Your task to perform on an android device: turn off translation in the chrome app Image 0: 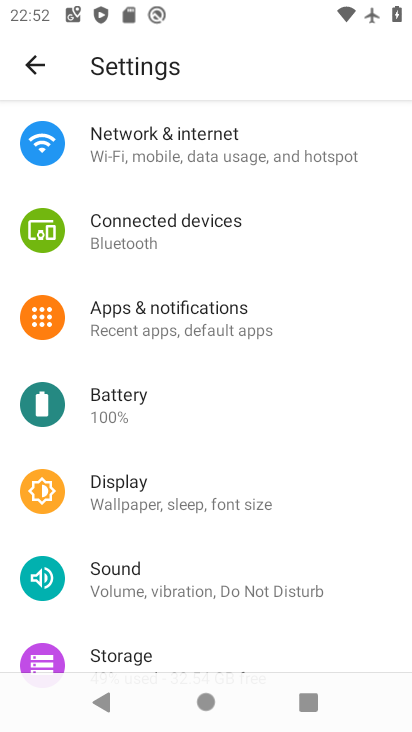
Step 0: press home button
Your task to perform on an android device: turn off translation in the chrome app Image 1: 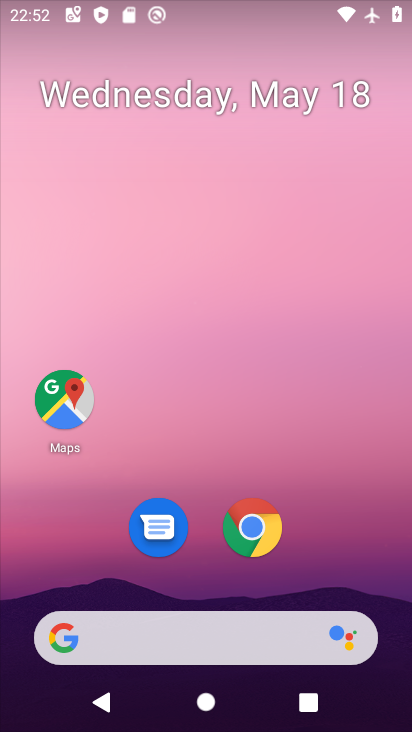
Step 1: click (262, 542)
Your task to perform on an android device: turn off translation in the chrome app Image 2: 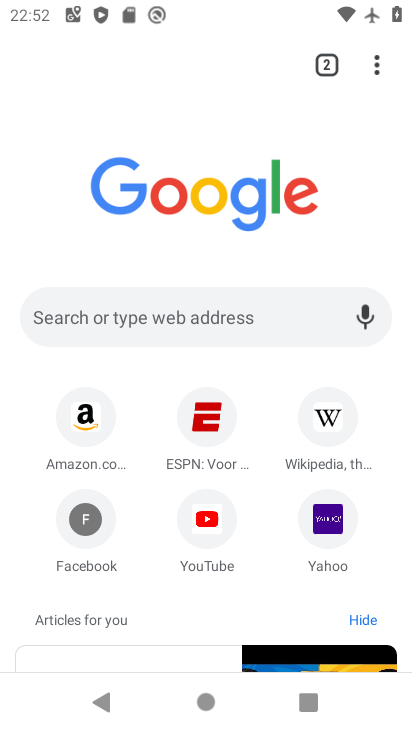
Step 2: click (383, 60)
Your task to perform on an android device: turn off translation in the chrome app Image 3: 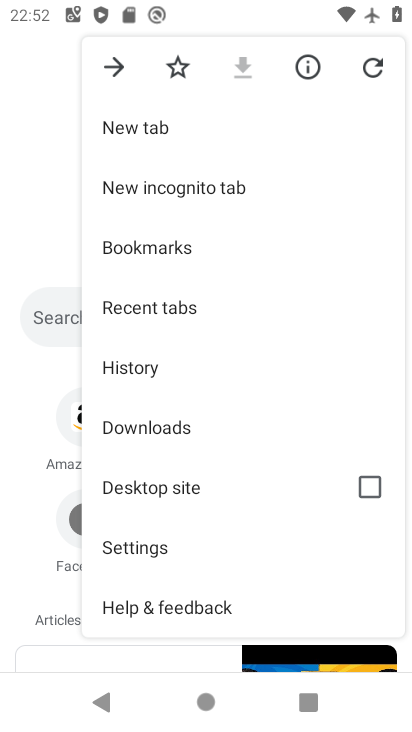
Step 3: click (124, 561)
Your task to perform on an android device: turn off translation in the chrome app Image 4: 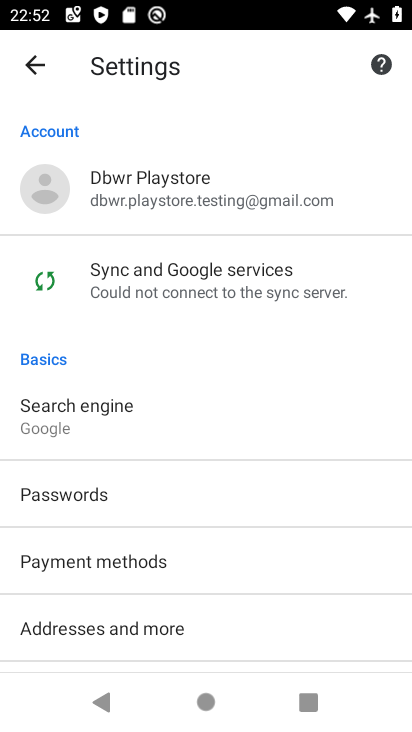
Step 4: drag from (114, 586) to (133, 295)
Your task to perform on an android device: turn off translation in the chrome app Image 5: 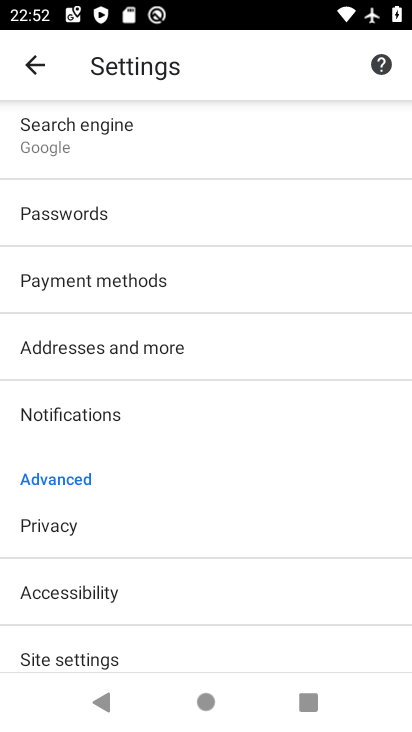
Step 5: click (86, 654)
Your task to perform on an android device: turn off translation in the chrome app Image 6: 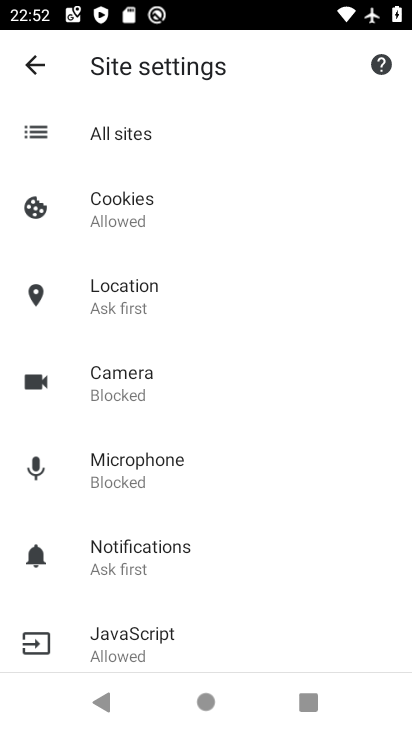
Step 6: drag from (152, 631) to (171, 404)
Your task to perform on an android device: turn off translation in the chrome app Image 7: 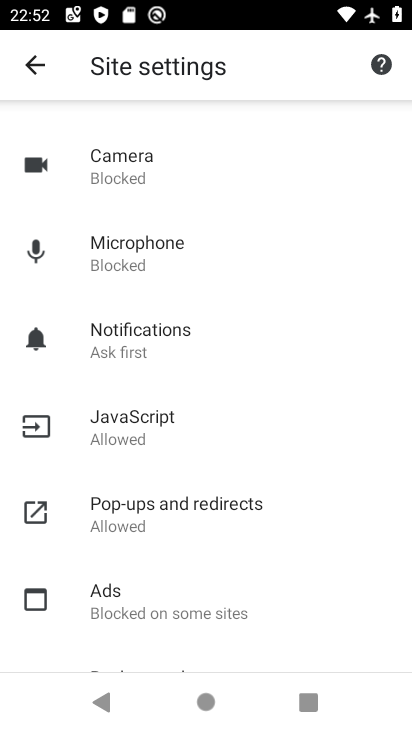
Step 7: click (46, 65)
Your task to perform on an android device: turn off translation in the chrome app Image 8: 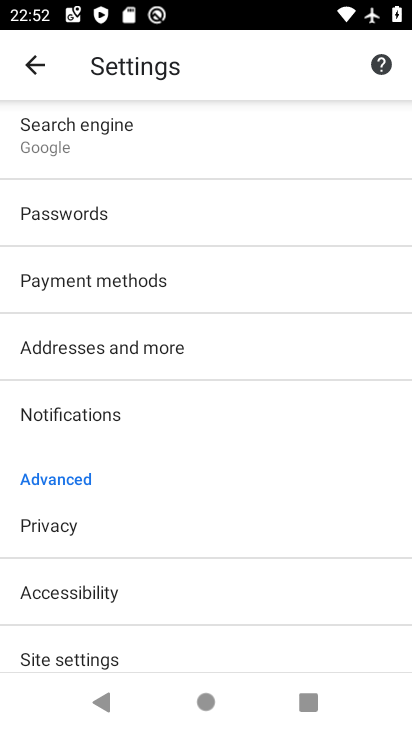
Step 8: drag from (162, 596) to (227, 352)
Your task to perform on an android device: turn off translation in the chrome app Image 9: 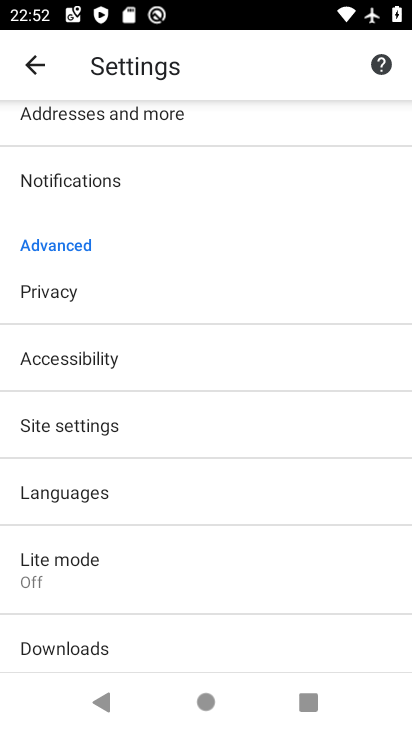
Step 9: click (252, 488)
Your task to perform on an android device: turn off translation in the chrome app Image 10: 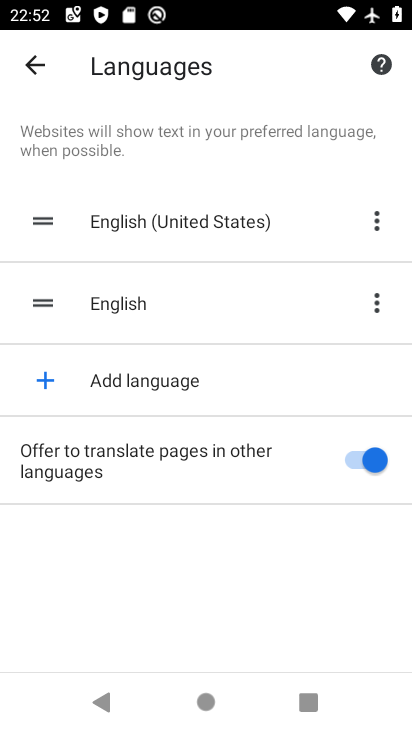
Step 10: click (370, 486)
Your task to perform on an android device: turn off translation in the chrome app Image 11: 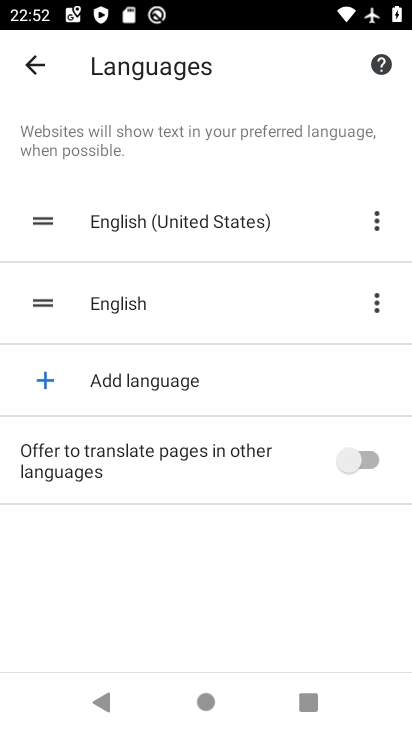
Step 11: task complete